Your task to perform on an android device: Go to wifi settings Image 0: 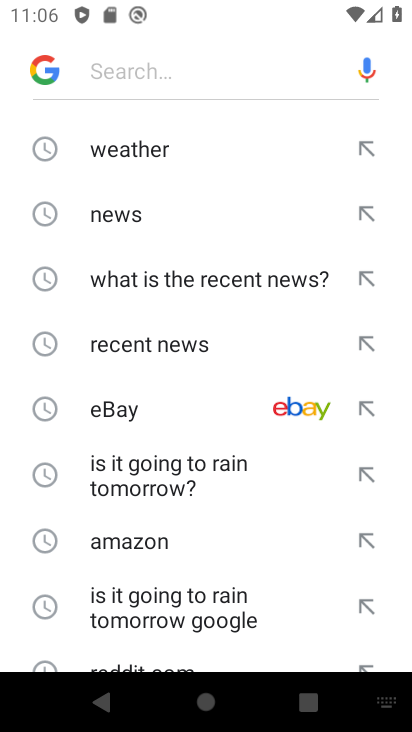
Step 0: press back button
Your task to perform on an android device: Go to wifi settings Image 1: 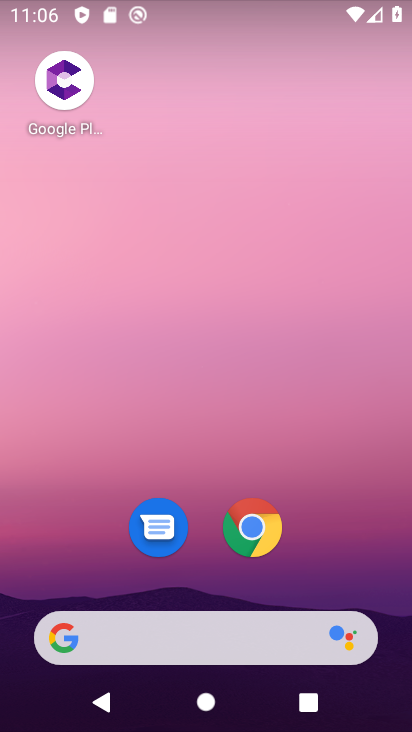
Step 1: drag from (238, 9) to (132, 413)
Your task to perform on an android device: Go to wifi settings Image 2: 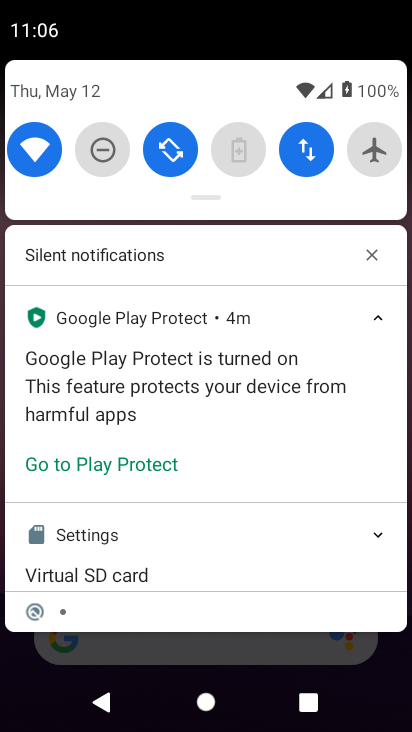
Step 2: click (34, 147)
Your task to perform on an android device: Go to wifi settings Image 3: 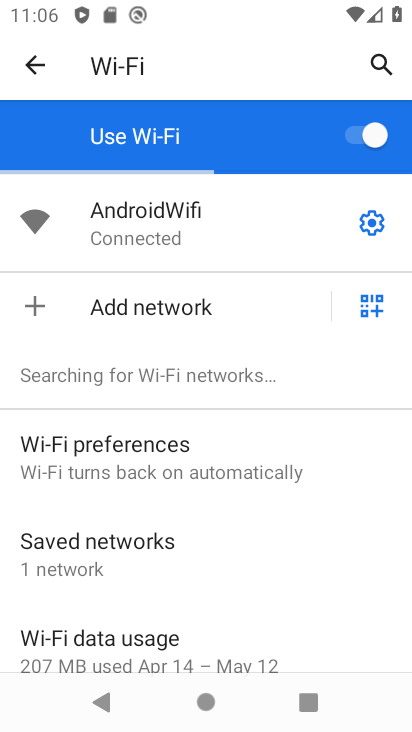
Step 3: click (367, 225)
Your task to perform on an android device: Go to wifi settings Image 4: 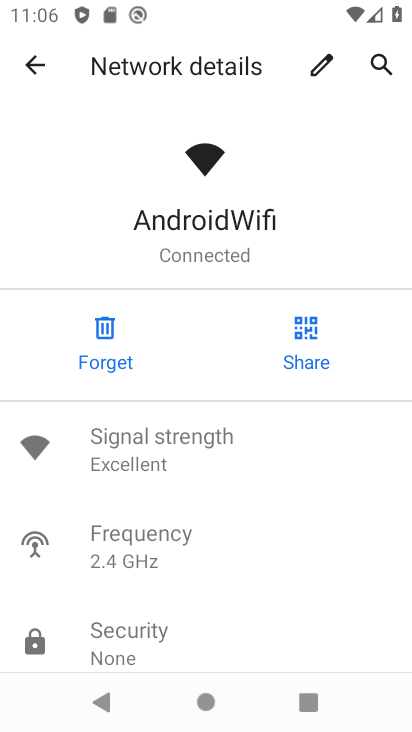
Step 4: task complete